Your task to perform on an android device: Turn off the flashlight Image 0: 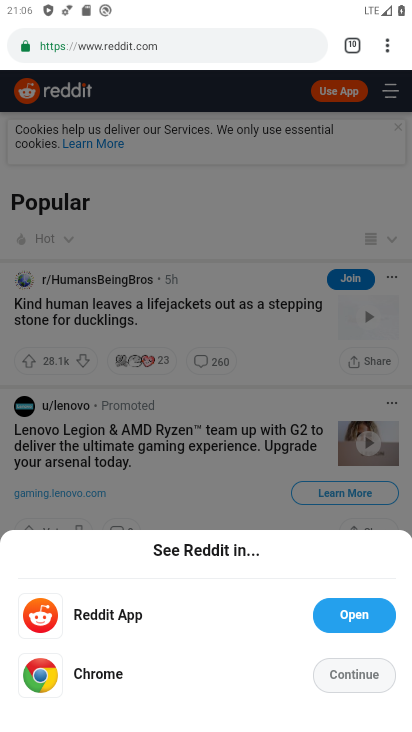
Step 0: press home button
Your task to perform on an android device: Turn off the flashlight Image 1: 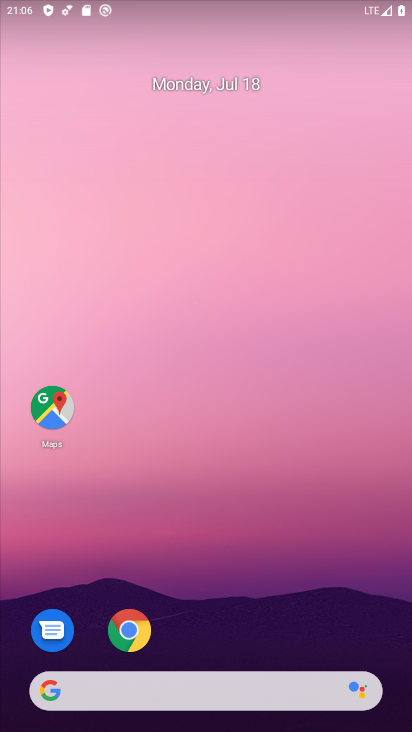
Step 1: drag from (239, 634) to (55, 169)
Your task to perform on an android device: Turn off the flashlight Image 2: 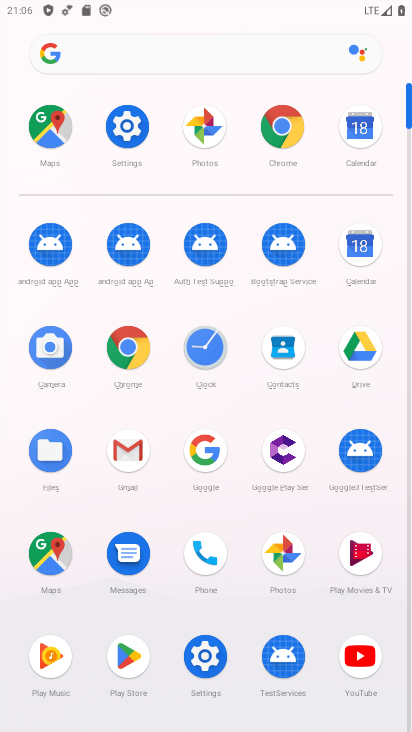
Step 2: click (153, 113)
Your task to perform on an android device: Turn off the flashlight Image 3: 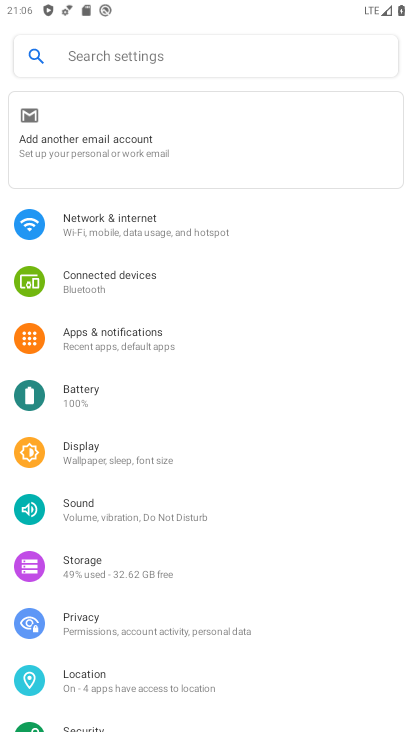
Step 3: click (127, 115)
Your task to perform on an android device: Turn off the flashlight Image 4: 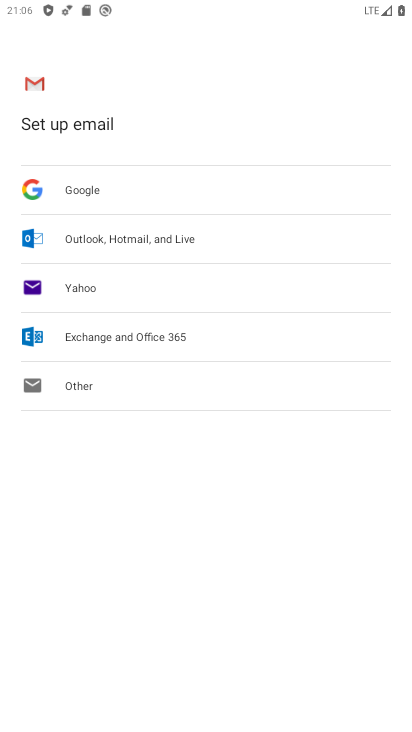
Step 4: click (127, 115)
Your task to perform on an android device: Turn off the flashlight Image 5: 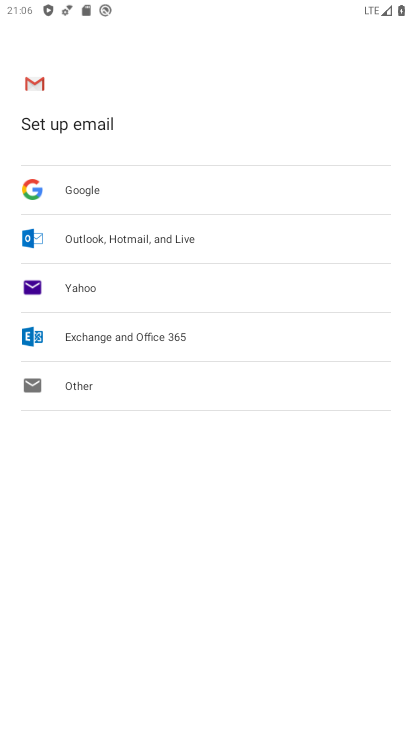
Step 5: click (127, 115)
Your task to perform on an android device: Turn off the flashlight Image 6: 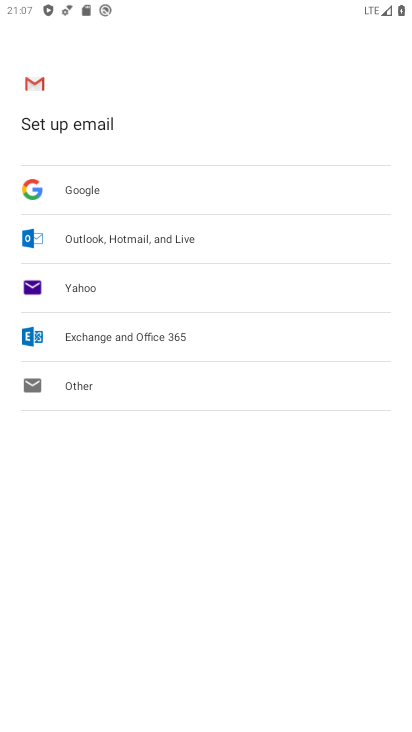
Step 6: click (127, 115)
Your task to perform on an android device: Turn off the flashlight Image 7: 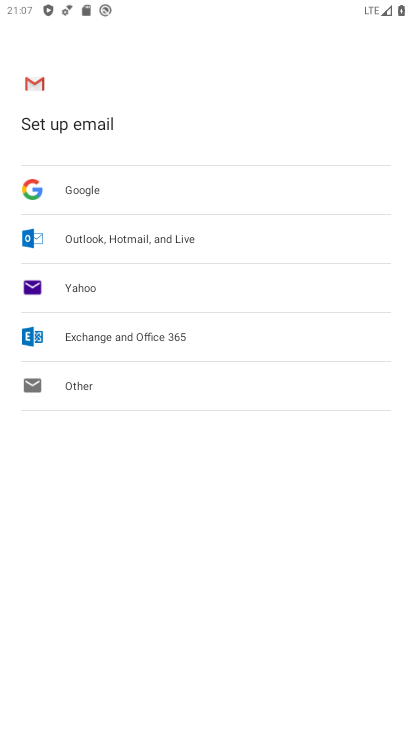
Step 7: task complete